Your task to perform on an android device: open a bookmark in the chrome app Image 0: 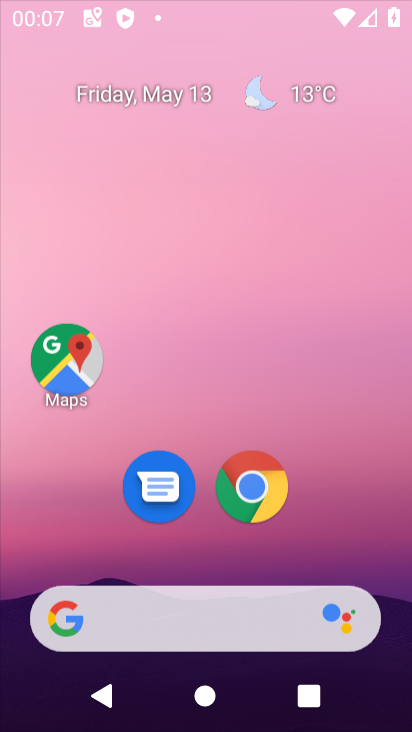
Step 0: click (183, 544)
Your task to perform on an android device: open a bookmark in the chrome app Image 1: 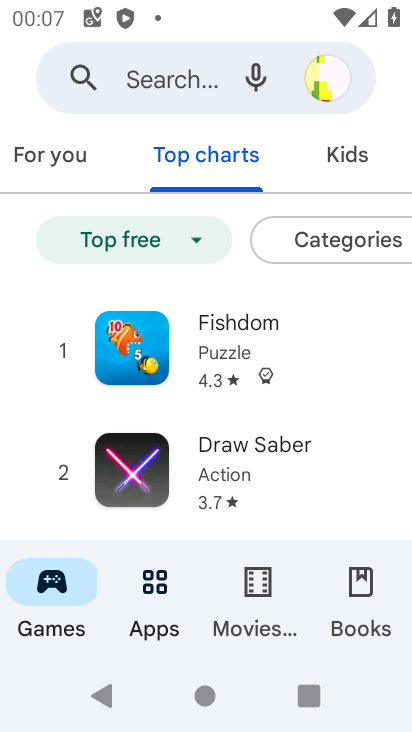
Step 1: press home button
Your task to perform on an android device: open a bookmark in the chrome app Image 2: 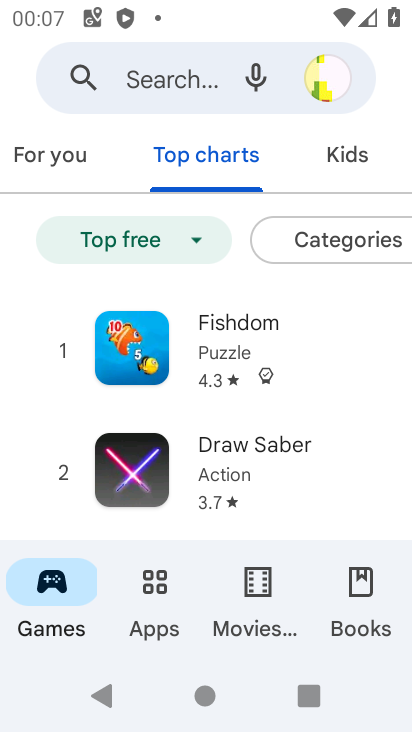
Step 2: drag from (183, 544) to (305, 549)
Your task to perform on an android device: open a bookmark in the chrome app Image 3: 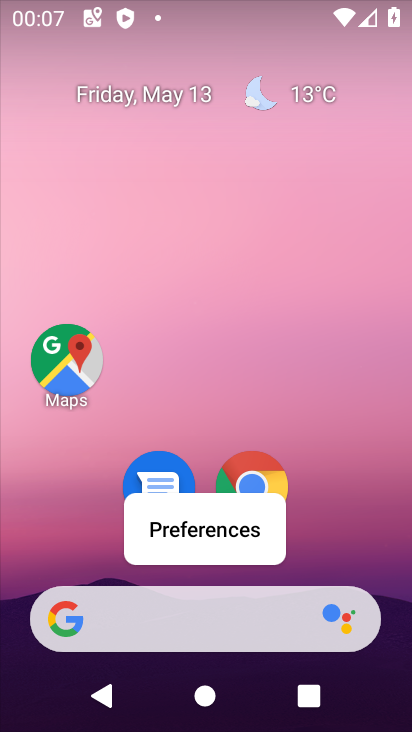
Step 3: click (263, 480)
Your task to perform on an android device: open a bookmark in the chrome app Image 4: 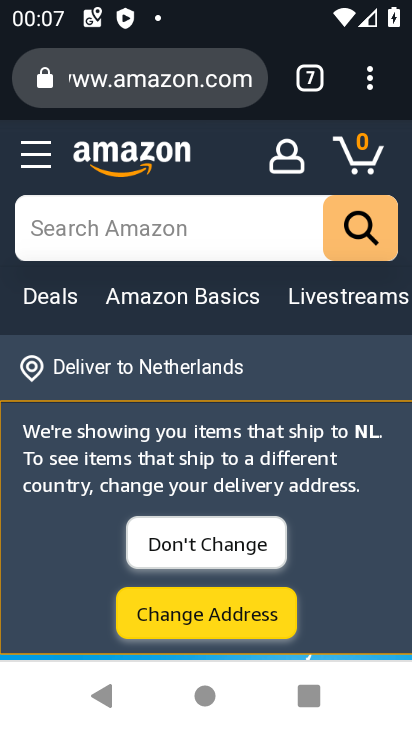
Step 4: click (377, 66)
Your task to perform on an android device: open a bookmark in the chrome app Image 5: 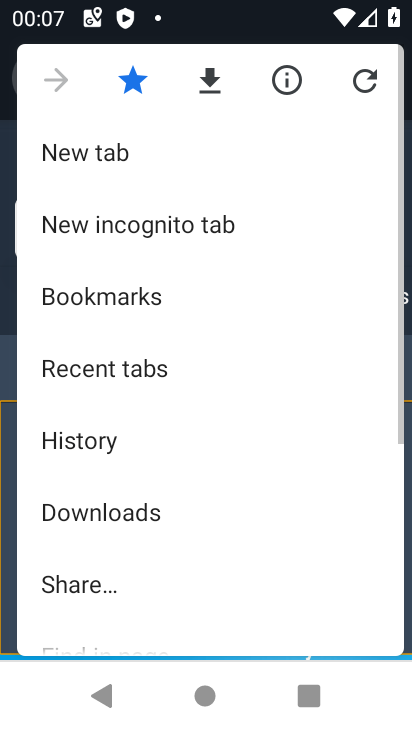
Step 5: click (164, 295)
Your task to perform on an android device: open a bookmark in the chrome app Image 6: 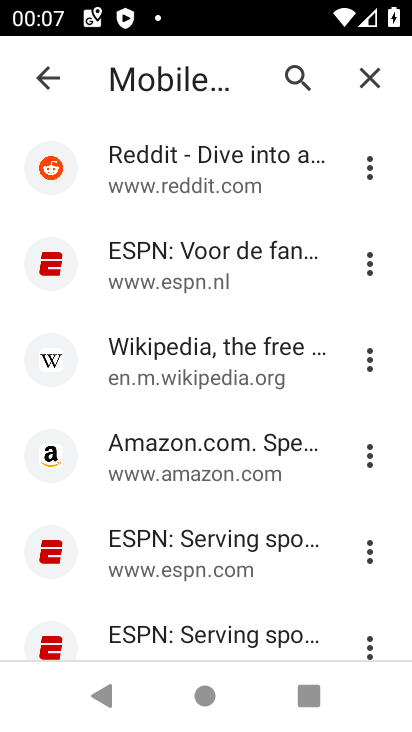
Step 6: click (164, 295)
Your task to perform on an android device: open a bookmark in the chrome app Image 7: 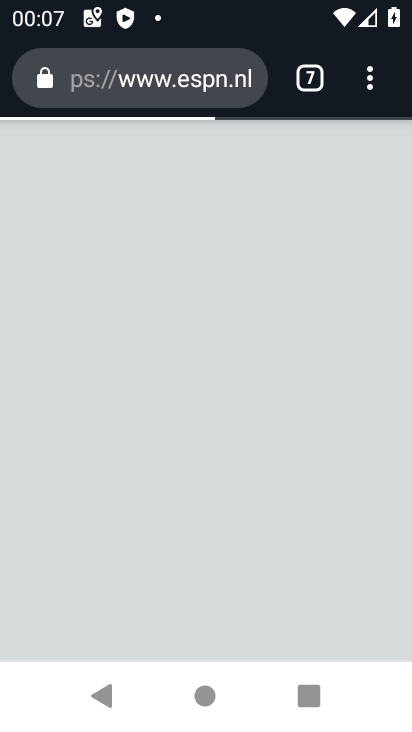
Step 7: task complete